Your task to perform on an android device: Show me popular videos on Youtube Image 0: 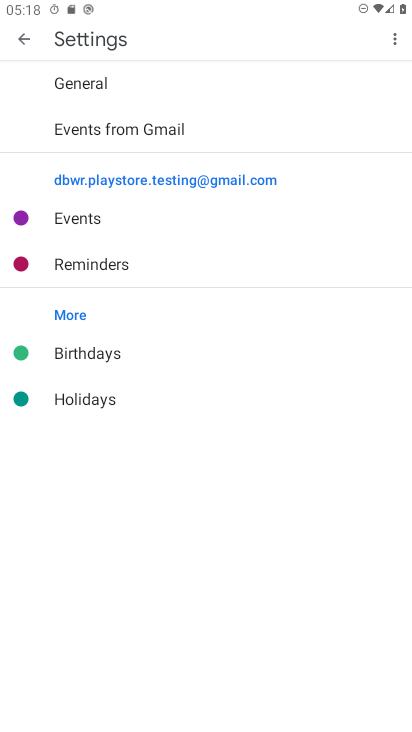
Step 0: press home button
Your task to perform on an android device: Show me popular videos on Youtube Image 1: 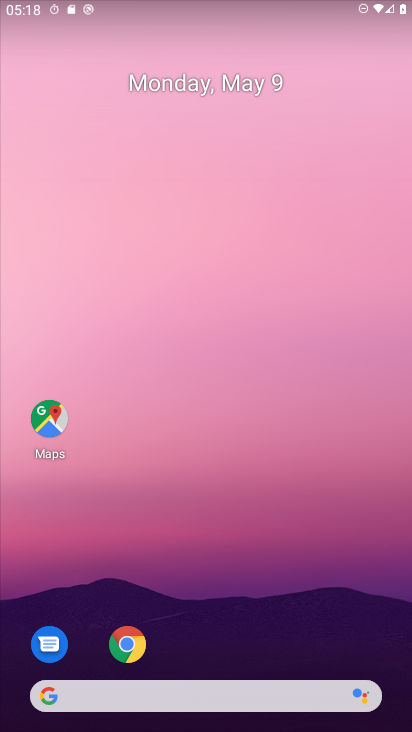
Step 1: drag from (234, 591) to (195, 36)
Your task to perform on an android device: Show me popular videos on Youtube Image 2: 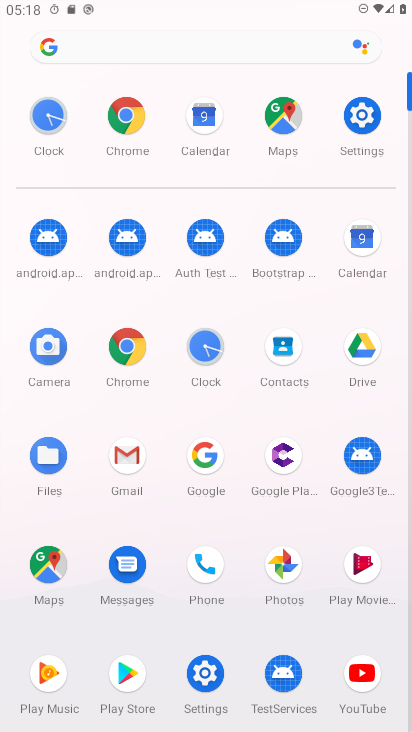
Step 2: click (363, 673)
Your task to perform on an android device: Show me popular videos on Youtube Image 3: 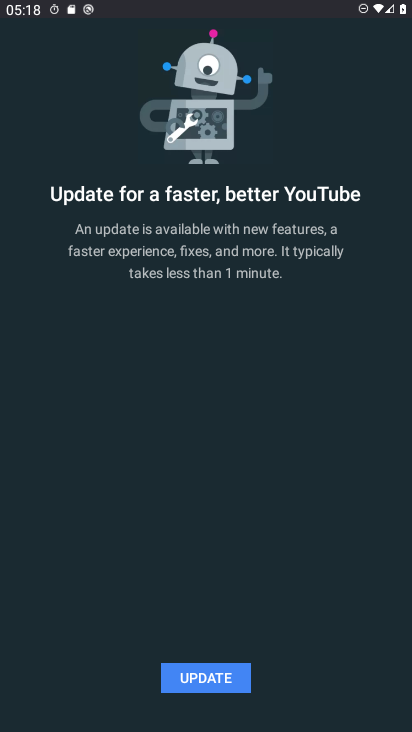
Step 3: click (205, 676)
Your task to perform on an android device: Show me popular videos on Youtube Image 4: 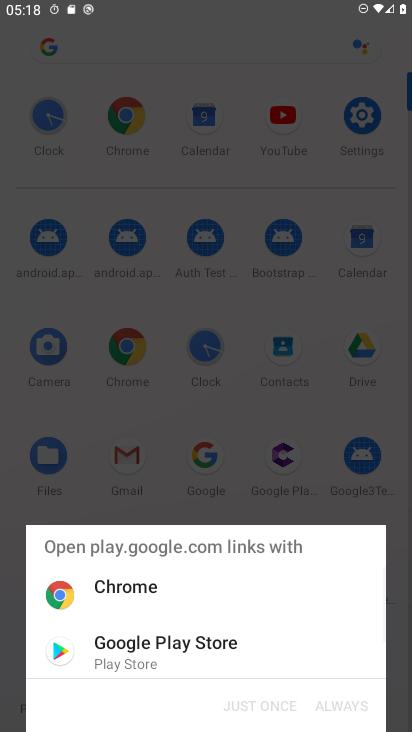
Step 4: click (144, 640)
Your task to perform on an android device: Show me popular videos on Youtube Image 5: 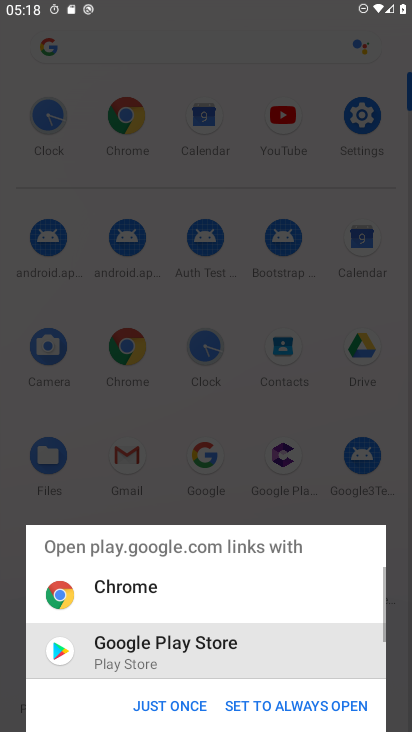
Step 5: click (177, 698)
Your task to perform on an android device: Show me popular videos on Youtube Image 6: 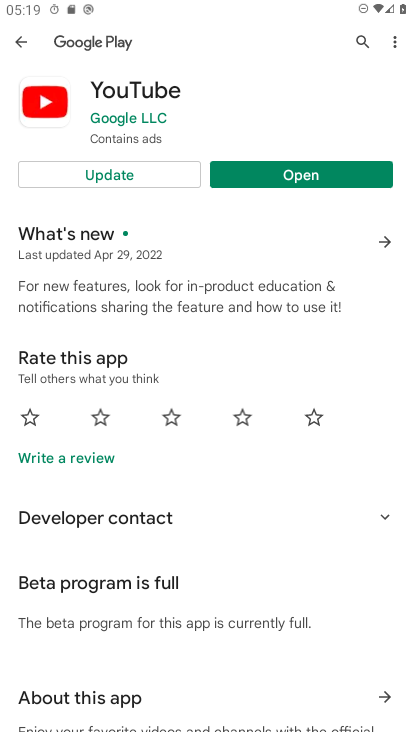
Step 6: click (146, 180)
Your task to perform on an android device: Show me popular videos on Youtube Image 7: 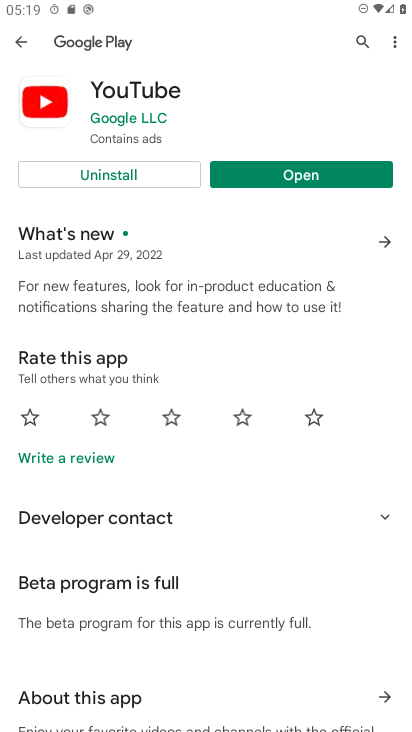
Step 7: click (312, 166)
Your task to perform on an android device: Show me popular videos on Youtube Image 8: 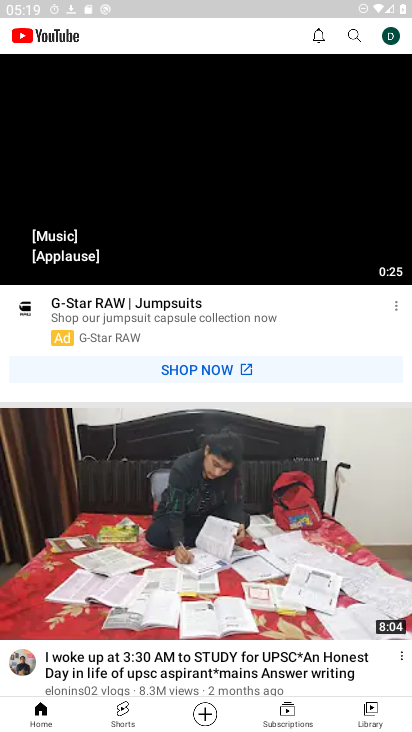
Step 8: click (166, 33)
Your task to perform on an android device: Show me popular videos on Youtube Image 9: 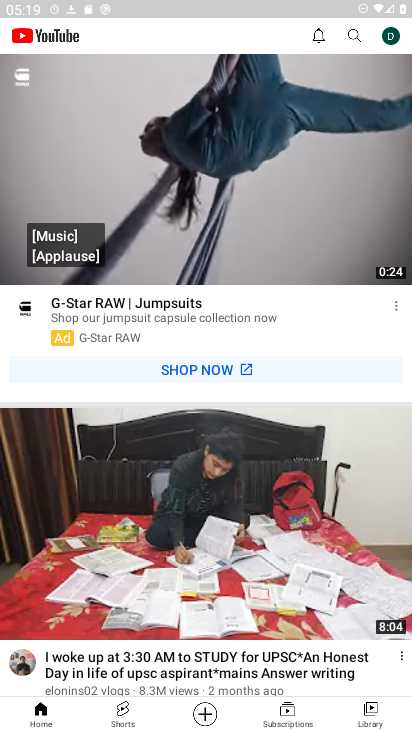
Step 9: click (351, 33)
Your task to perform on an android device: Show me popular videos on Youtube Image 10: 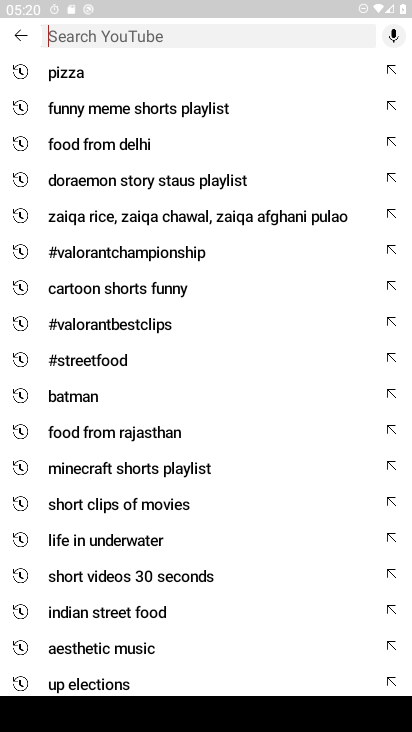
Step 10: type "popular videos"
Your task to perform on an android device: Show me popular videos on Youtube Image 11: 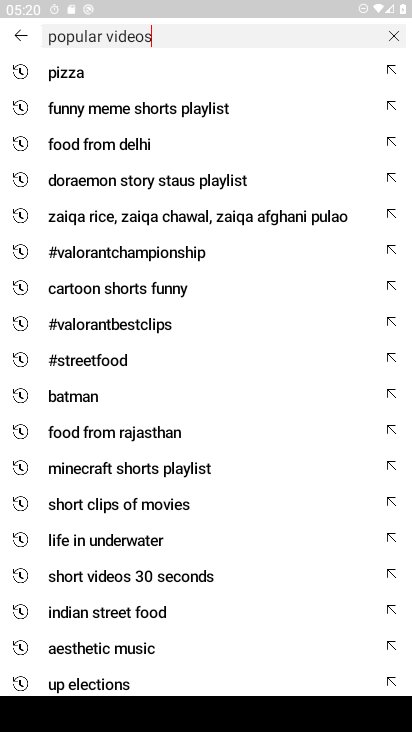
Step 11: type ""
Your task to perform on an android device: Show me popular videos on Youtube Image 12: 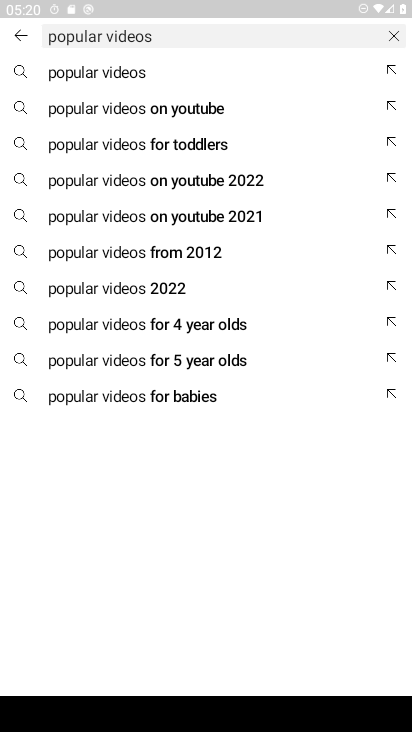
Step 12: click (143, 108)
Your task to perform on an android device: Show me popular videos on Youtube Image 13: 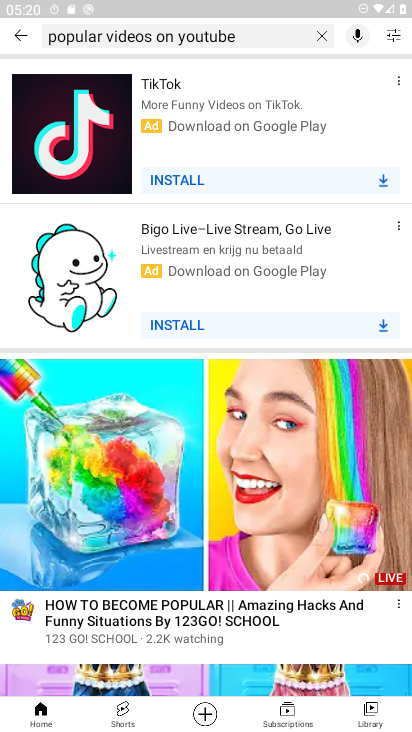
Step 13: task complete